Your task to perform on an android device: turn on sleep mode Image 0: 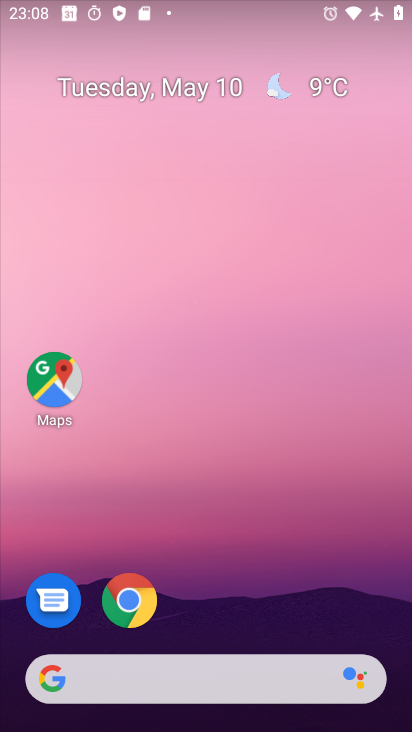
Step 0: drag from (268, 589) to (335, 96)
Your task to perform on an android device: turn on sleep mode Image 1: 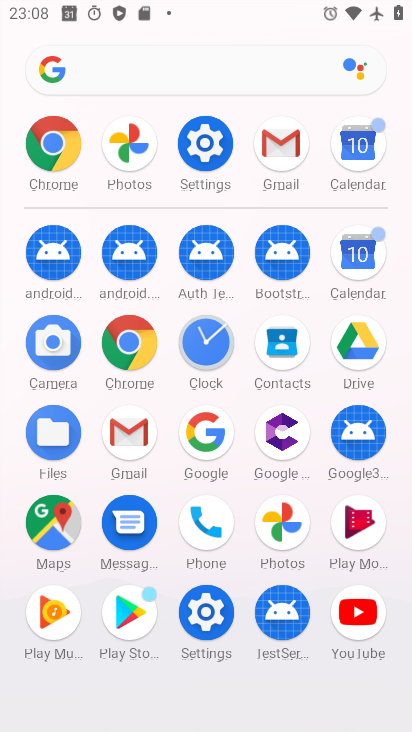
Step 1: click (224, 146)
Your task to perform on an android device: turn on sleep mode Image 2: 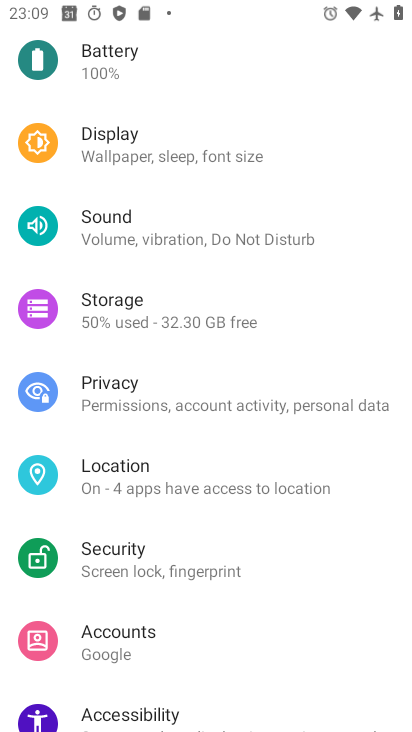
Step 2: click (129, 148)
Your task to perform on an android device: turn on sleep mode Image 3: 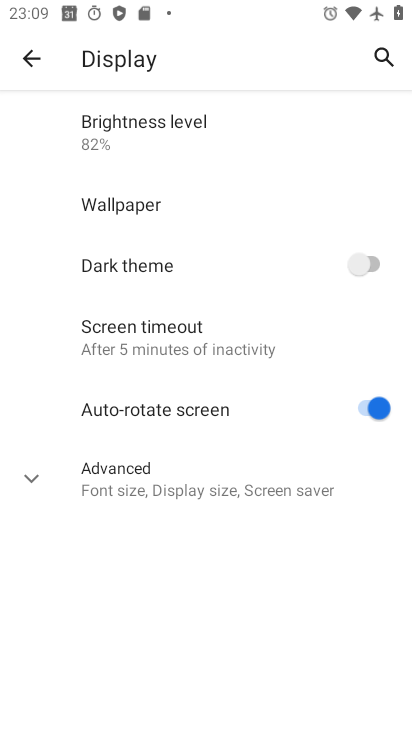
Step 3: task complete